Your task to perform on an android device: Clear all items from cart on costco. Add beats solo 3 to the cart on costco Image 0: 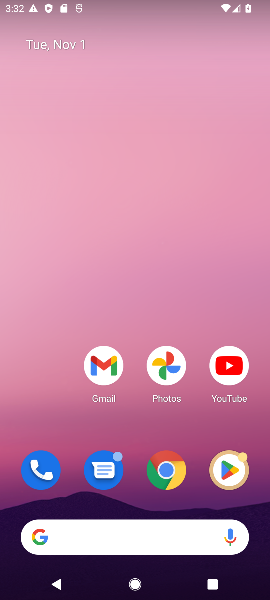
Step 0: click (169, 468)
Your task to perform on an android device: Clear all items from cart on costco. Add beats solo 3 to the cart on costco Image 1: 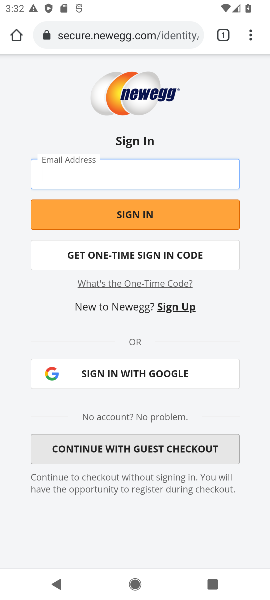
Step 1: click (159, 39)
Your task to perform on an android device: Clear all items from cart on costco. Add beats solo 3 to the cart on costco Image 2: 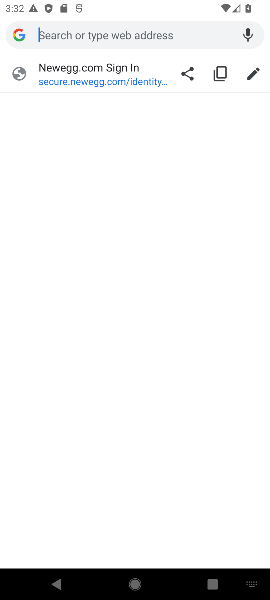
Step 2: type "costco"
Your task to perform on an android device: Clear all items from cart on costco. Add beats solo 3 to the cart on costco Image 3: 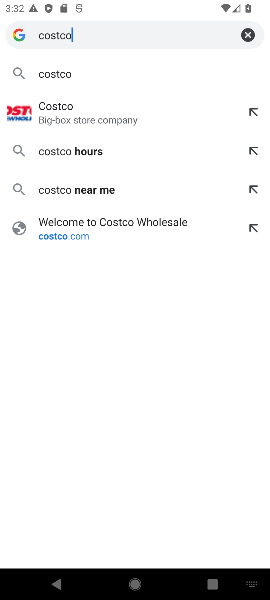
Step 3: click (61, 73)
Your task to perform on an android device: Clear all items from cart on costco. Add beats solo 3 to the cart on costco Image 4: 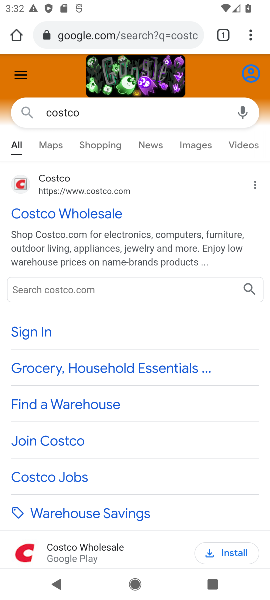
Step 4: click (66, 211)
Your task to perform on an android device: Clear all items from cart on costco. Add beats solo 3 to the cart on costco Image 5: 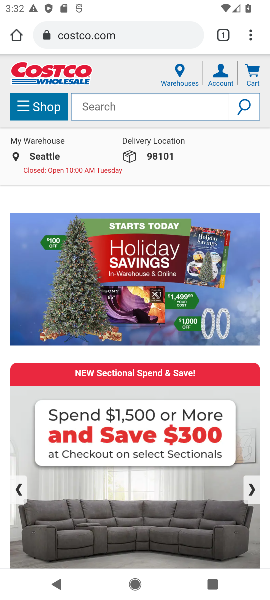
Step 5: click (252, 77)
Your task to perform on an android device: Clear all items from cart on costco. Add beats solo 3 to the cart on costco Image 6: 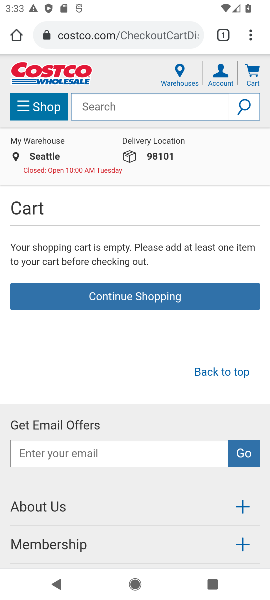
Step 6: click (140, 109)
Your task to perform on an android device: Clear all items from cart on costco. Add beats solo 3 to the cart on costco Image 7: 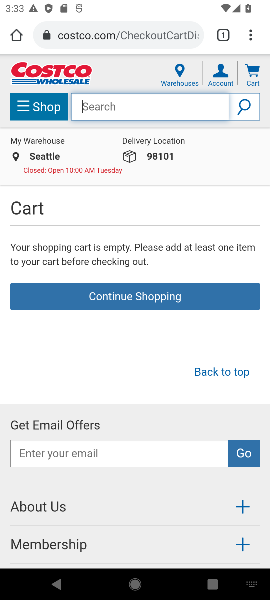
Step 7: click (135, 107)
Your task to perform on an android device: Clear all items from cart on costco. Add beats solo 3 to the cart on costco Image 8: 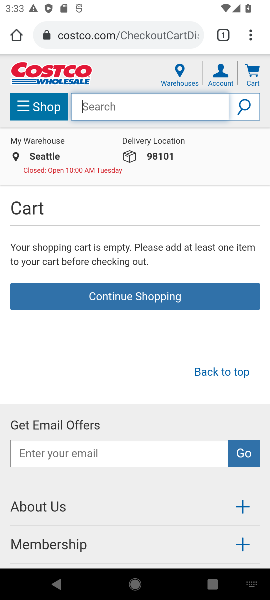
Step 8: type "beats solo 3"
Your task to perform on an android device: Clear all items from cart on costco. Add beats solo 3 to the cart on costco Image 9: 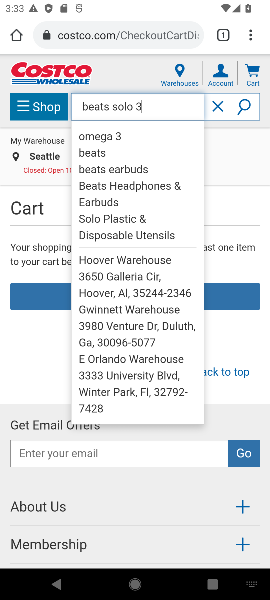
Step 9: press enter
Your task to perform on an android device: Clear all items from cart on costco. Add beats solo 3 to the cart on costco Image 10: 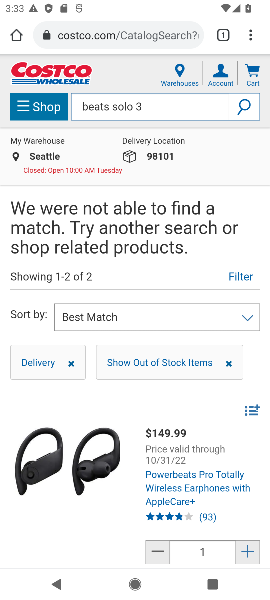
Step 10: task complete